Your task to perform on an android device: delete a single message in the gmail app Image 0: 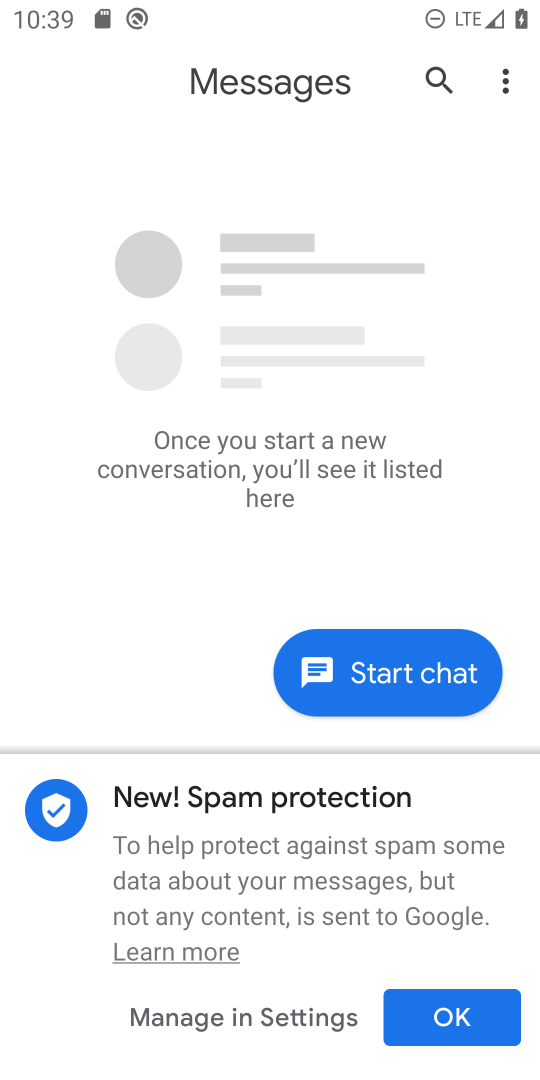
Step 0: press home button
Your task to perform on an android device: delete a single message in the gmail app Image 1: 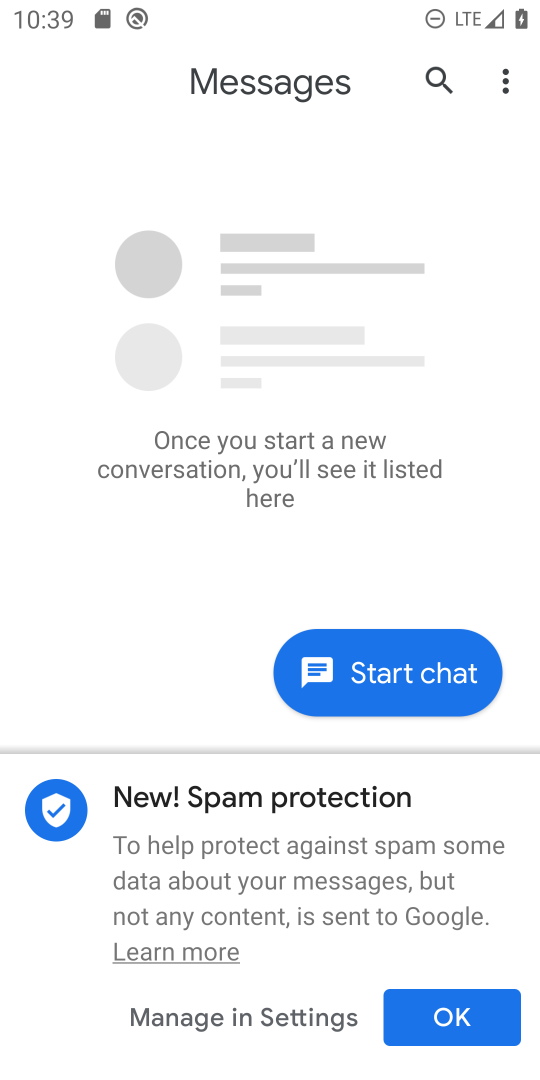
Step 1: press home button
Your task to perform on an android device: delete a single message in the gmail app Image 2: 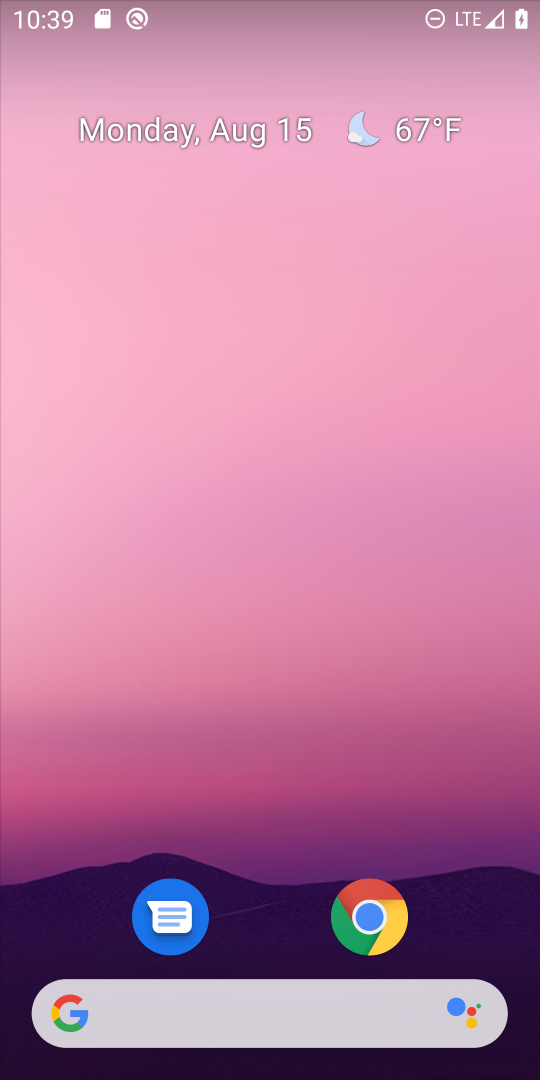
Step 2: drag from (260, 859) to (384, 49)
Your task to perform on an android device: delete a single message in the gmail app Image 3: 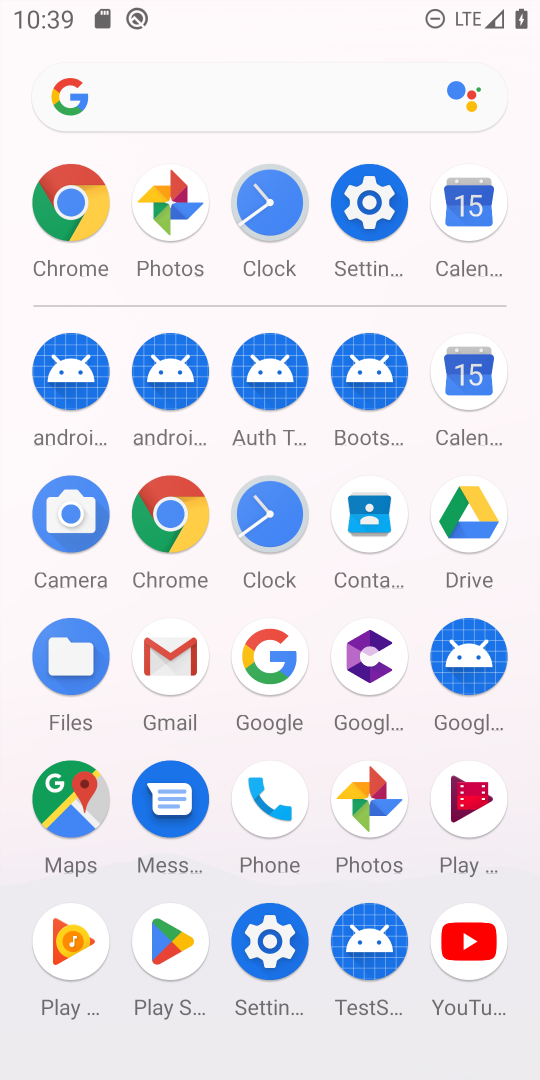
Step 3: click (166, 655)
Your task to perform on an android device: delete a single message in the gmail app Image 4: 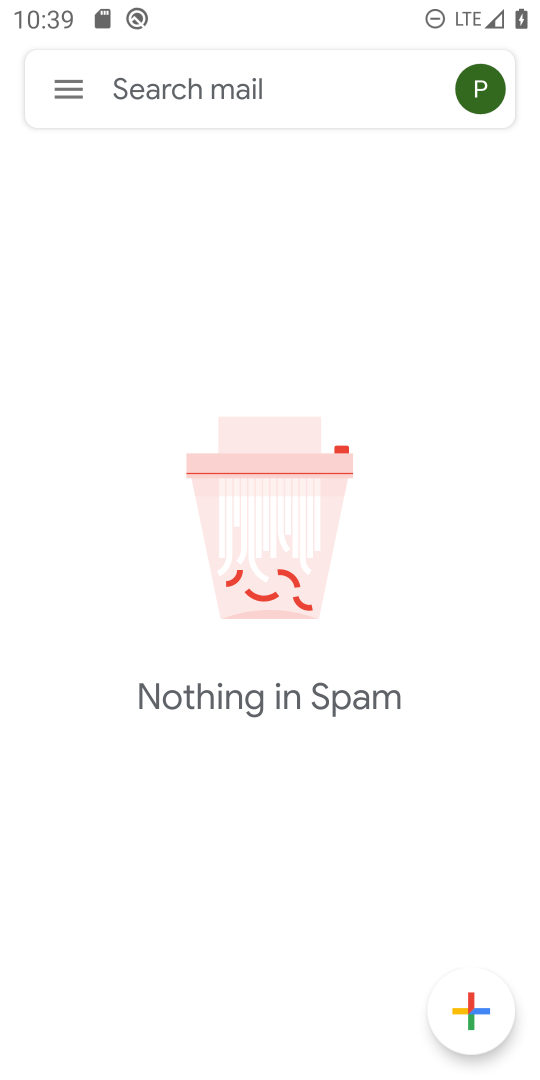
Step 4: click (72, 81)
Your task to perform on an android device: delete a single message in the gmail app Image 5: 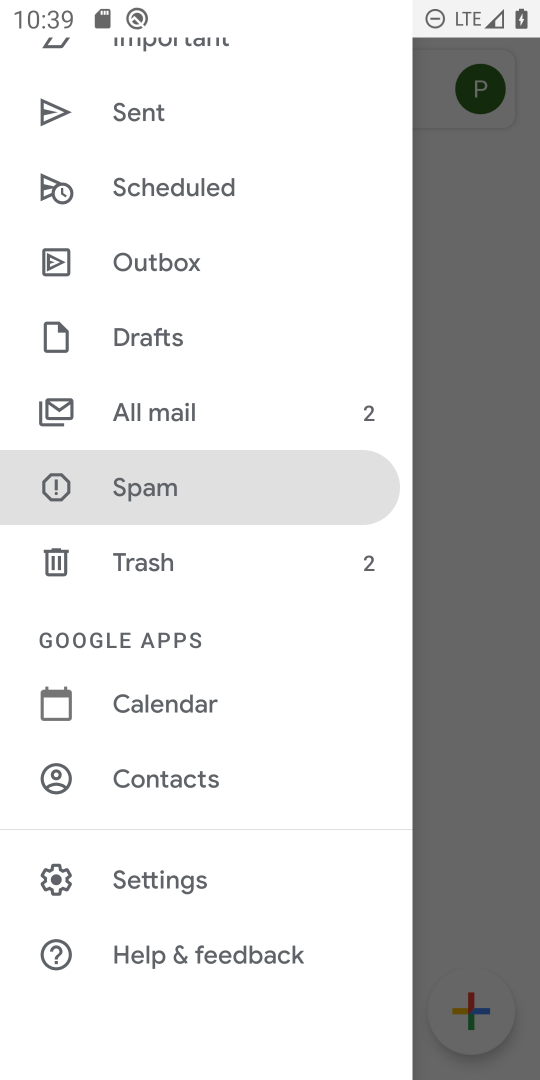
Step 5: click (190, 403)
Your task to perform on an android device: delete a single message in the gmail app Image 6: 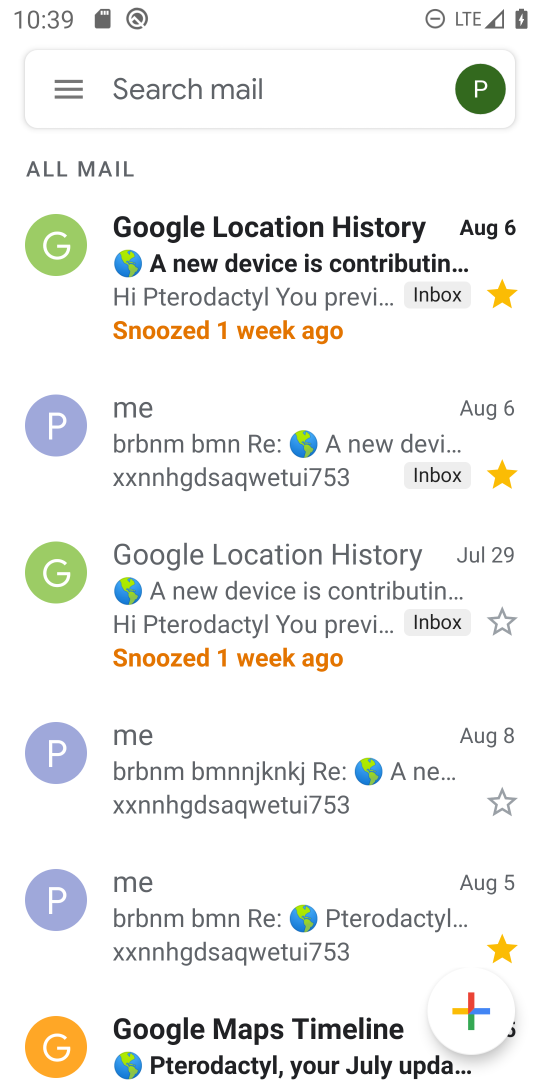
Step 6: click (57, 749)
Your task to perform on an android device: delete a single message in the gmail app Image 7: 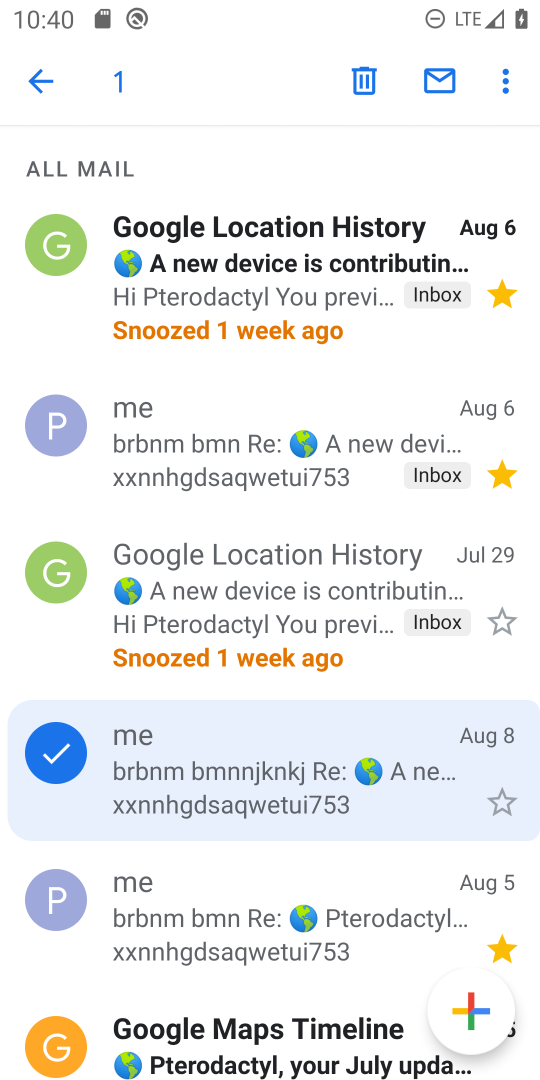
Step 7: click (368, 83)
Your task to perform on an android device: delete a single message in the gmail app Image 8: 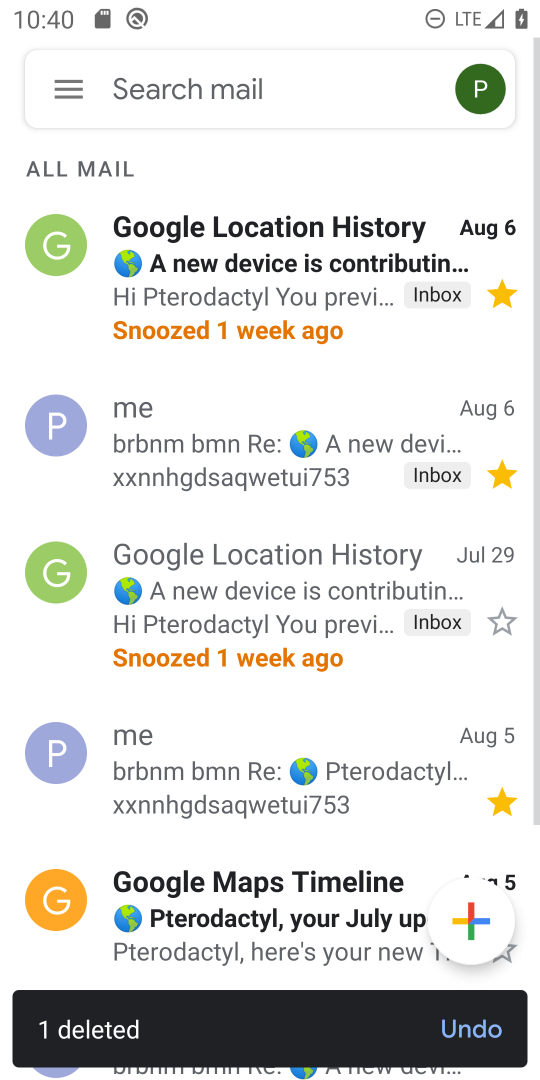
Step 8: task complete